Your task to perform on an android device: Open the Play Movies app and select the watchlist tab. Image 0: 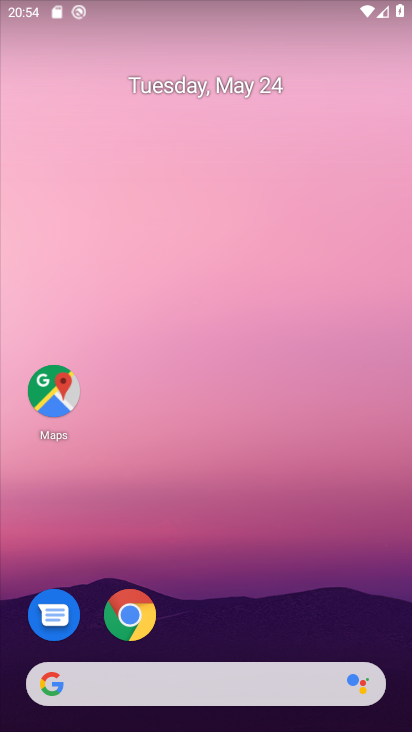
Step 0: drag from (278, 518) to (310, 259)
Your task to perform on an android device: Open the Play Movies app and select the watchlist tab. Image 1: 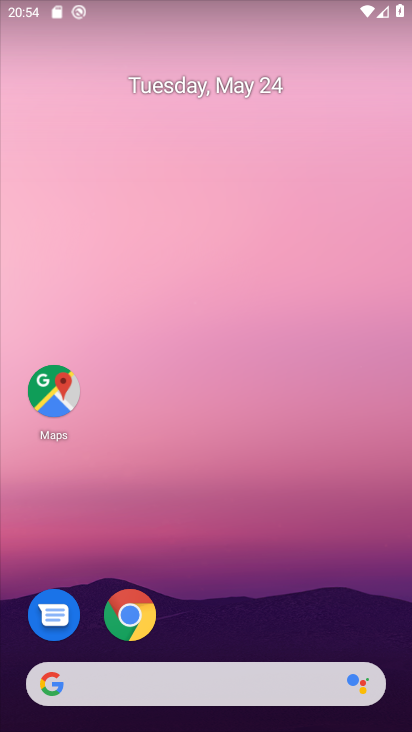
Step 1: drag from (260, 604) to (233, 249)
Your task to perform on an android device: Open the Play Movies app and select the watchlist tab. Image 2: 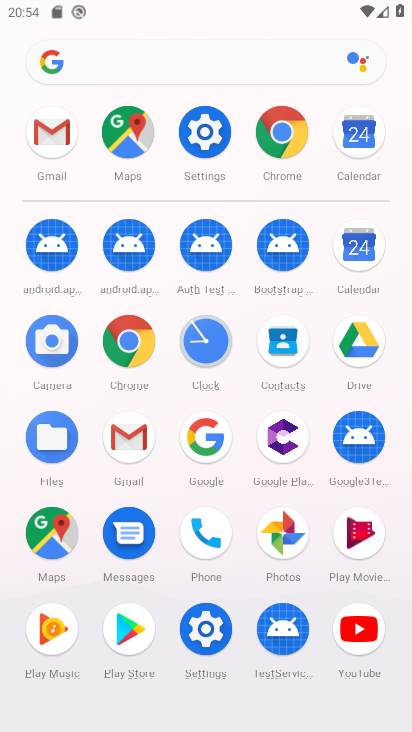
Step 2: click (357, 627)
Your task to perform on an android device: Open the Play Movies app and select the watchlist tab. Image 3: 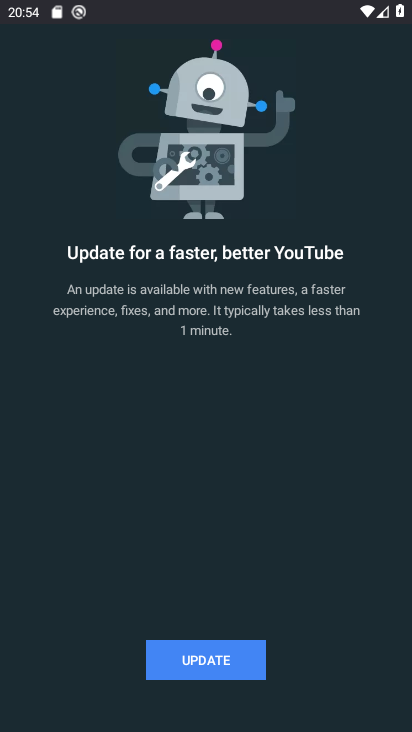
Step 3: press back button
Your task to perform on an android device: Open the Play Movies app and select the watchlist tab. Image 4: 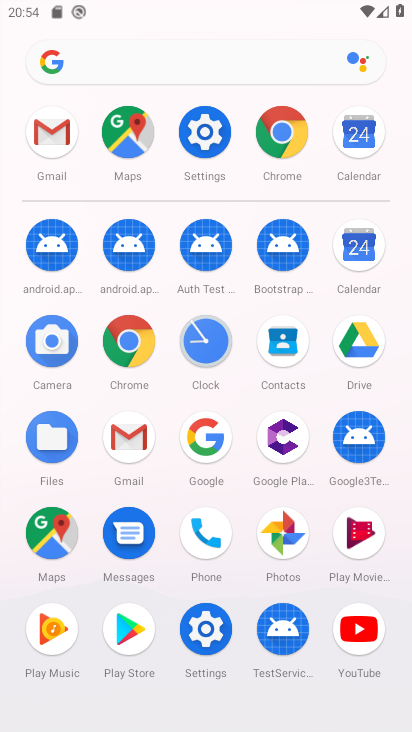
Step 4: click (366, 529)
Your task to perform on an android device: Open the Play Movies app and select the watchlist tab. Image 5: 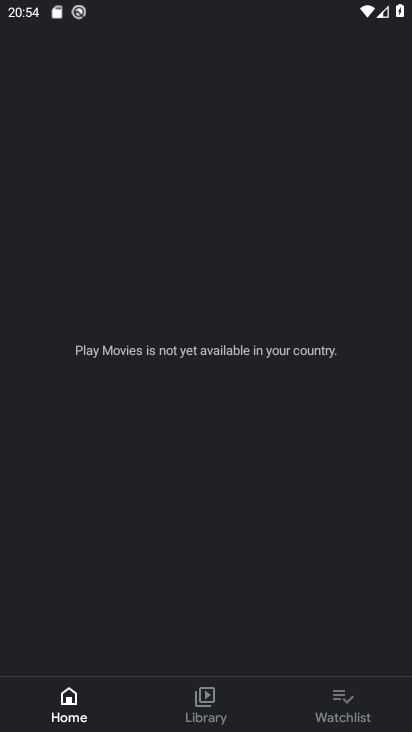
Step 5: click (327, 687)
Your task to perform on an android device: Open the Play Movies app and select the watchlist tab. Image 6: 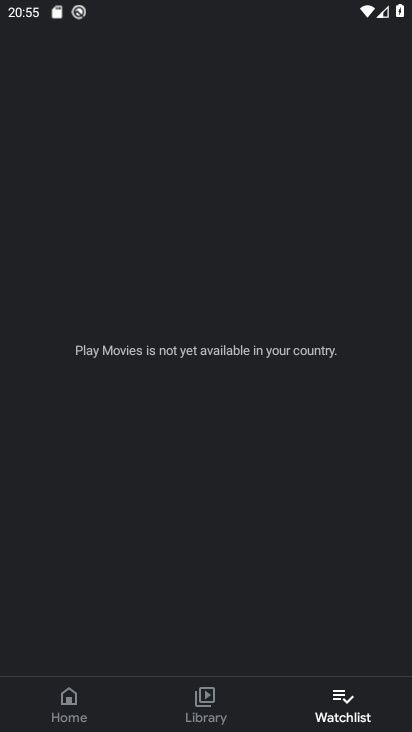
Step 6: task complete